Your task to perform on an android device: turn on the 24-hour format for clock Image 0: 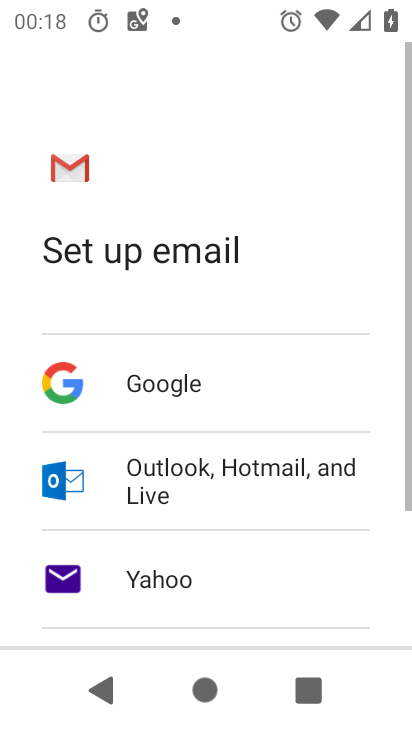
Step 0: press home button
Your task to perform on an android device: turn on the 24-hour format for clock Image 1: 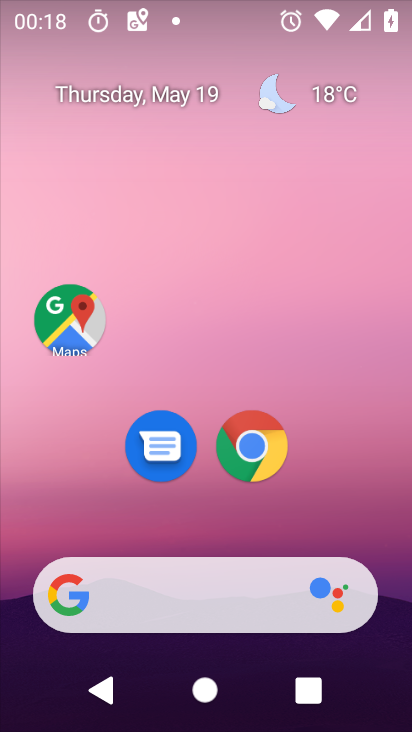
Step 1: drag from (226, 560) to (344, 127)
Your task to perform on an android device: turn on the 24-hour format for clock Image 2: 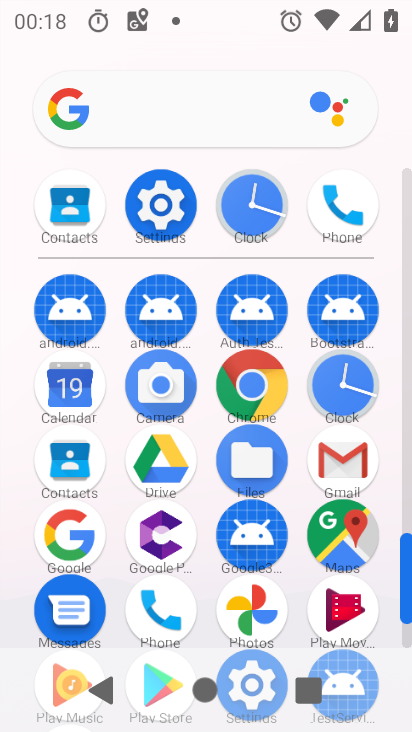
Step 2: click (336, 383)
Your task to perform on an android device: turn on the 24-hour format for clock Image 3: 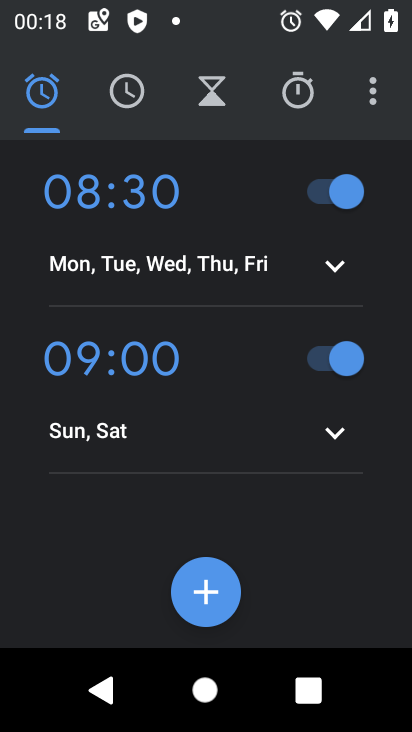
Step 3: click (376, 102)
Your task to perform on an android device: turn on the 24-hour format for clock Image 4: 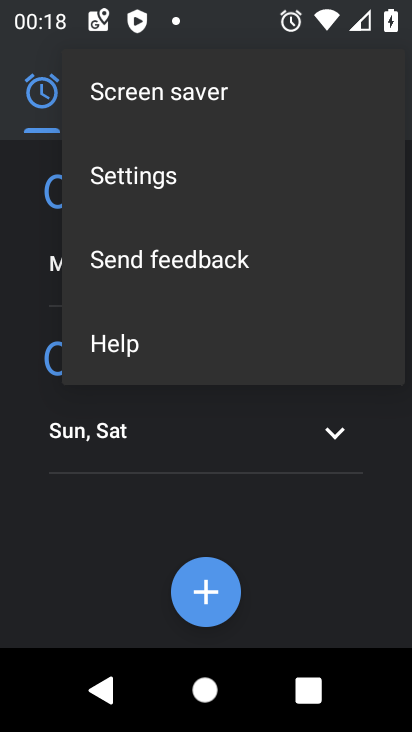
Step 4: click (199, 177)
Your task to perform on an android device: turn on the 24-hour format for clock Image 5: 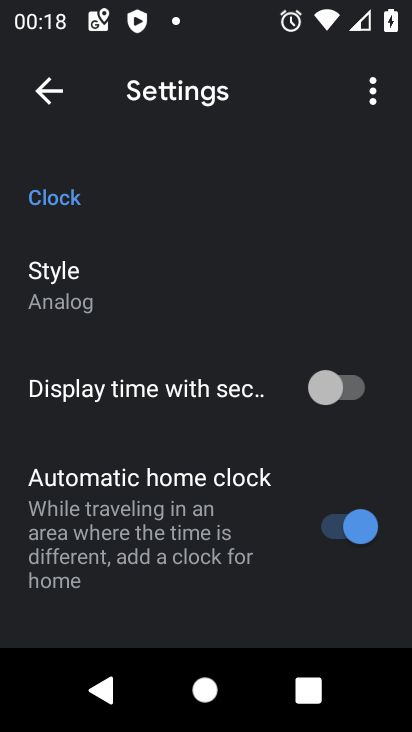
Step 5: drag from (148, 521) to (354, 89)
Your task to perform on an android device: turn on the 24-hour format for clock Image 6: 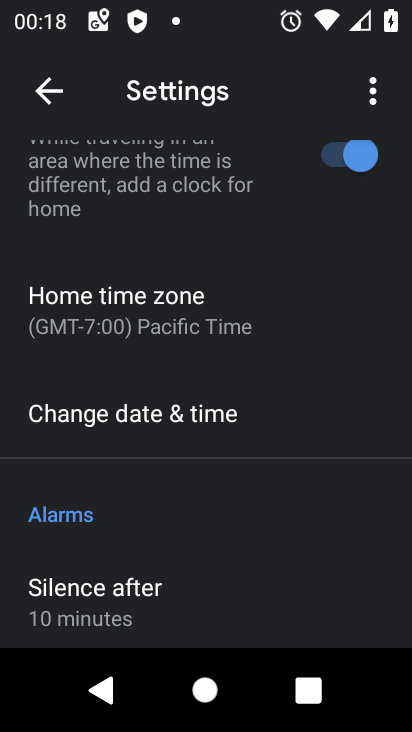
Step 6: click (197, 420)
Your task to perform on an android device: turn on the 24-hour format for clock Image 7: 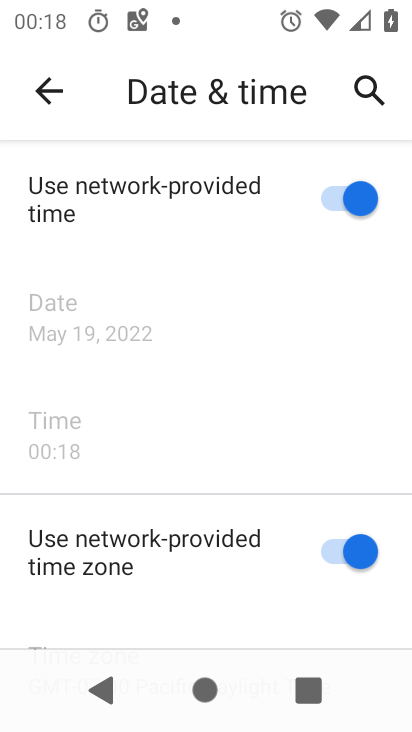
Step 7: task complete